Your task to perform on an android device: all mails in gmail Image 0: 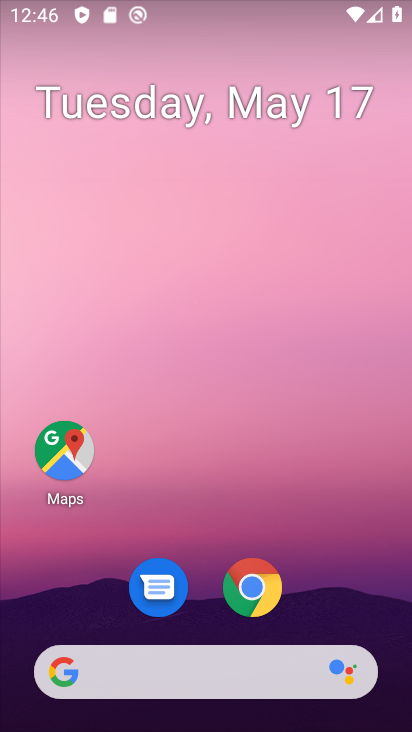
Step 0: drag from (382, 579) to (351, 225)
Your task to perform on an android device: all mails in gmail Image 1: 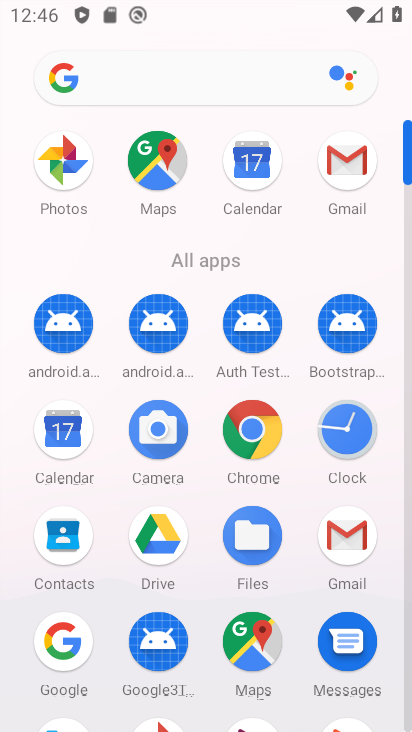
Step 1: click (330, 198)
Your task to perform on an android device: all mails in gmail Image 2: 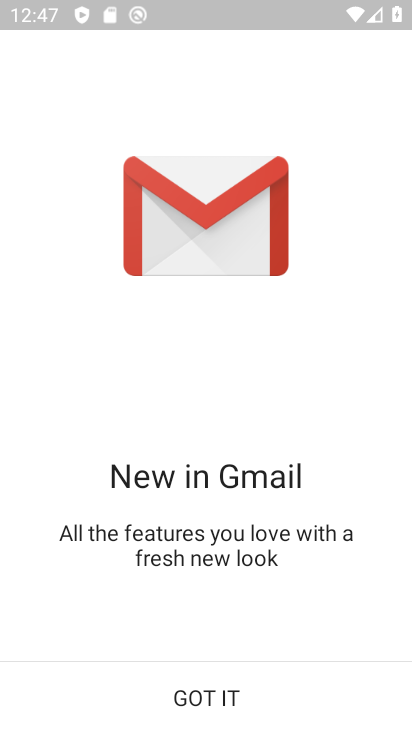
Step 2: click (205, 663)
Your task to perform on an android device: all mails in gmail Image 3: 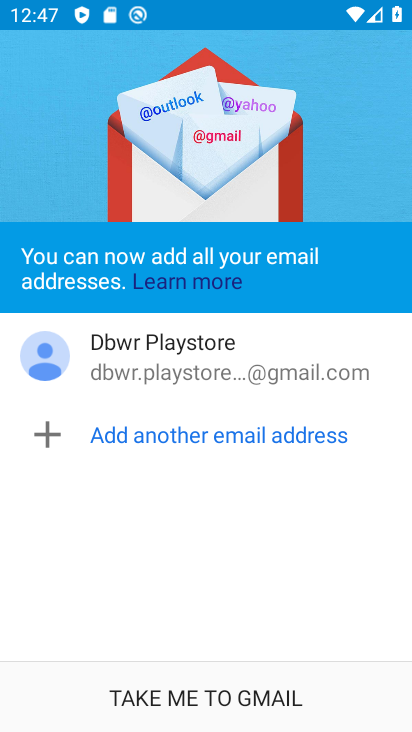
Step 3: click (205, 663)
Your task to perform on an android device: all mails in gmail Image 4: 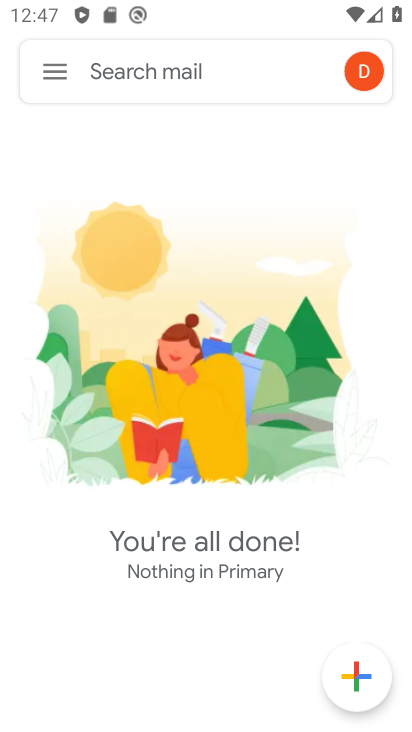
Step 4: click (50, 74)
Your task to perform on an android device: all mails in gmail Image 5: 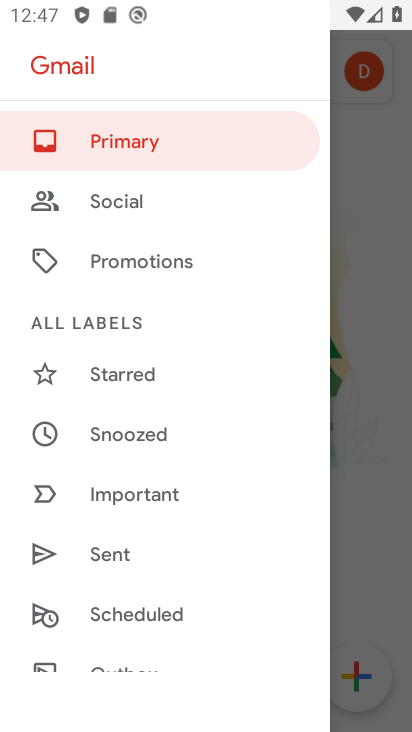
Step 5: drag from (95, 611) to (116, 399)
Your task to perform on an android device: all mails in gmail Image 6: 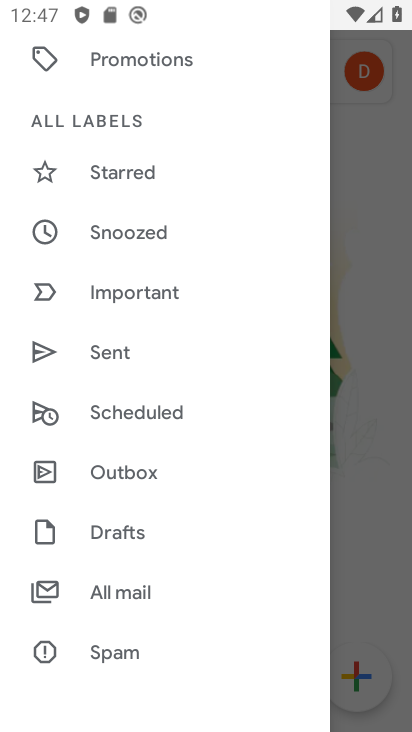
Step 6: click (91, 594)
Your task to perform on an android device: all mails in gmail Image 7: 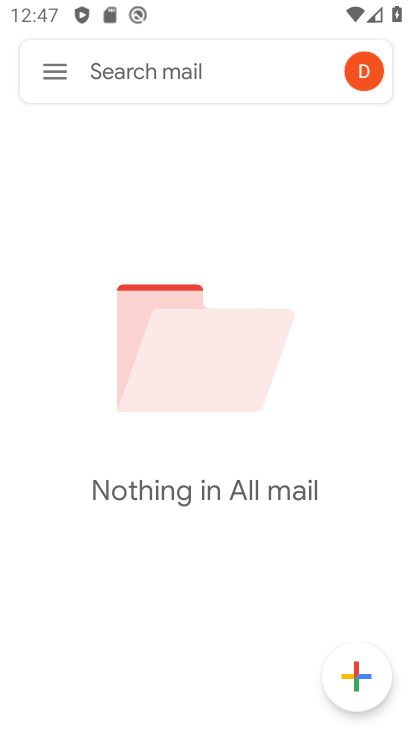
Step 7: task complete